Your task to perform on an android device: Show me recent news Image 0: 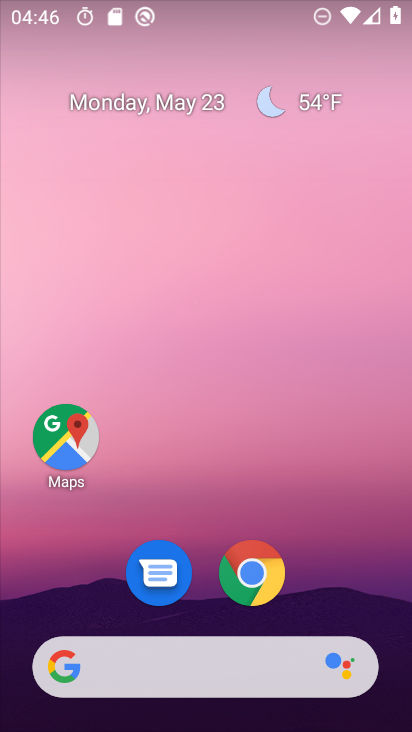
Step 0: drag from (323, 591) to (280, 42)
Your task to perform on an android device: Show me recent news Image 1: 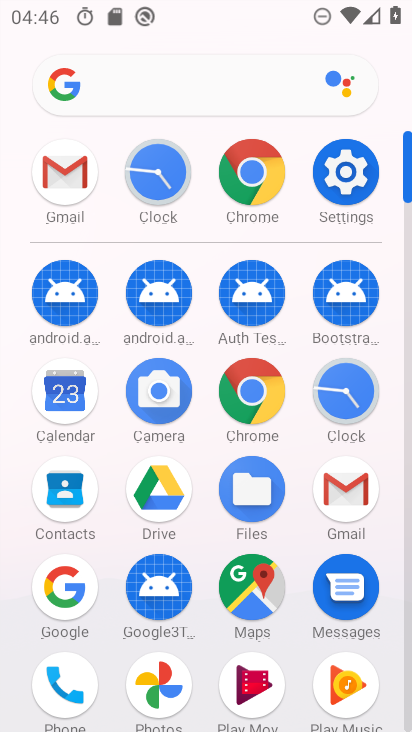
Step 1: click (72, 594)
Your task to perform on an android device: Show me recent news Image 2: 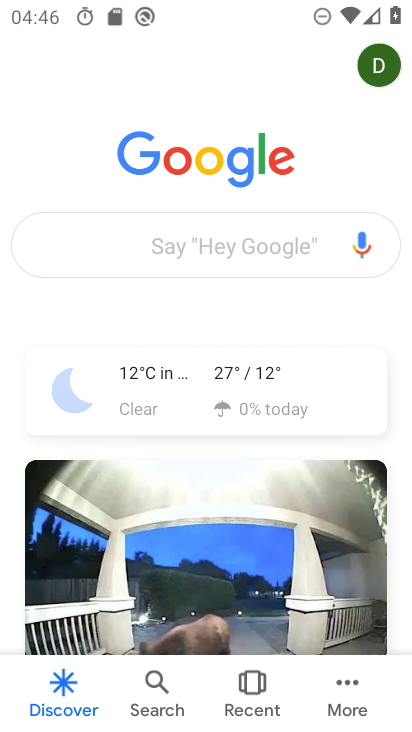
Step 2: click (250, 254)
Your task to perform on an android device: Show me recent news Image 3: 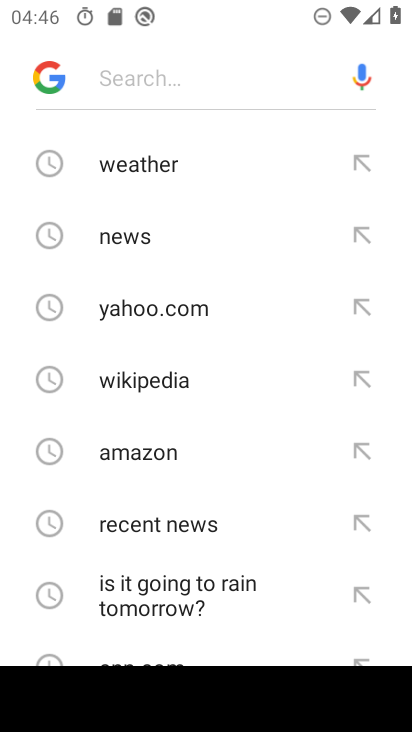
Step 3: click (164, 526)
Your task to perform on an android device: Show me recent news Image 4: 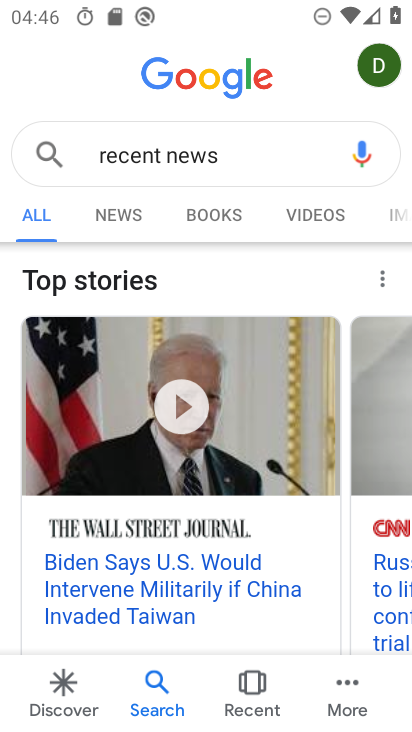
Step 4: click (113, 211)
Your task to perform on an android device: Show me recent news Image 5: 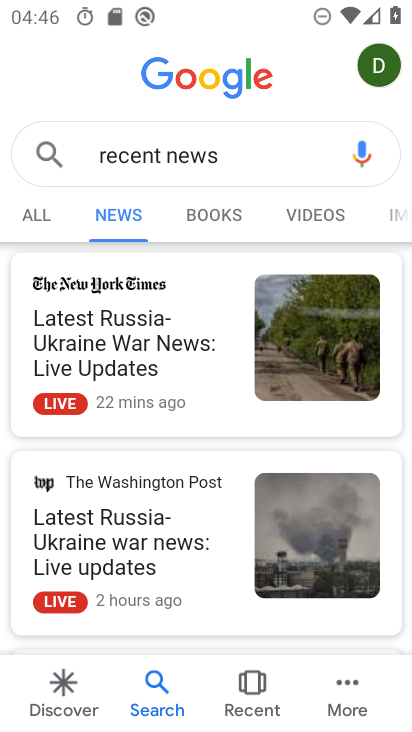
Step 5: task complete